Your task to perform on an android device: Open network settings Image 0: 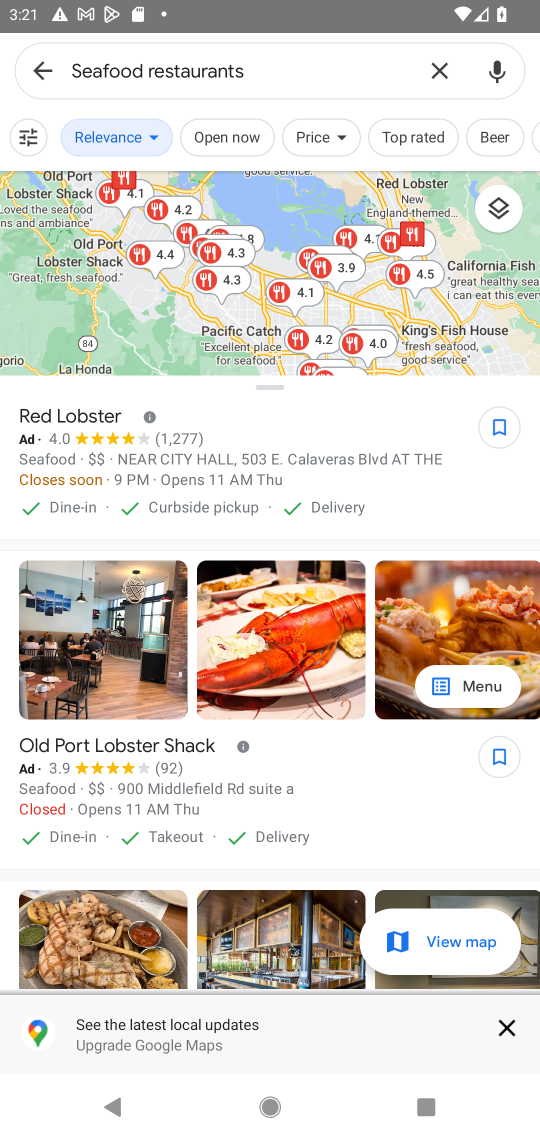
Step 0: press home button
Your task to perform on an android device: Open network settings Image 1: 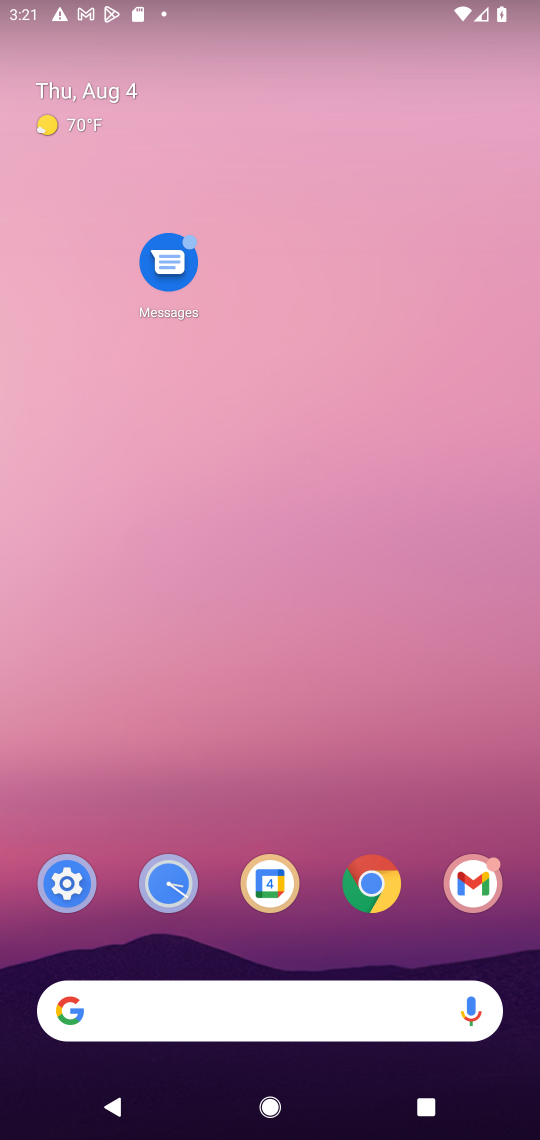
Step 1: drag from (276, 886) to (278, 141)
Your task to perform on an android device: Open network settings Image 2: 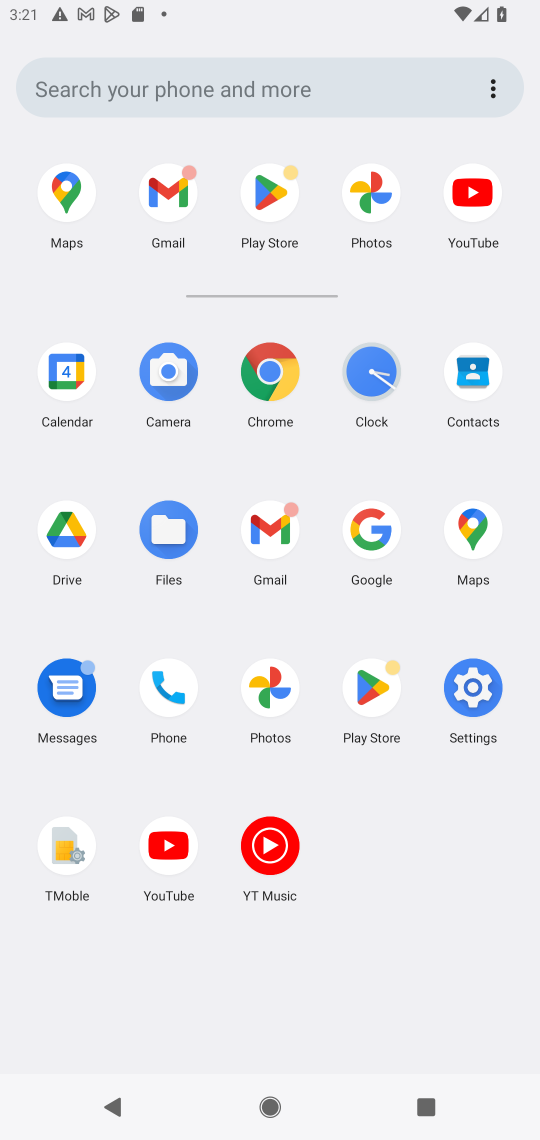
Step 2: click (479, 688)
Your task to perform on an android device: Open network settings Image 3: 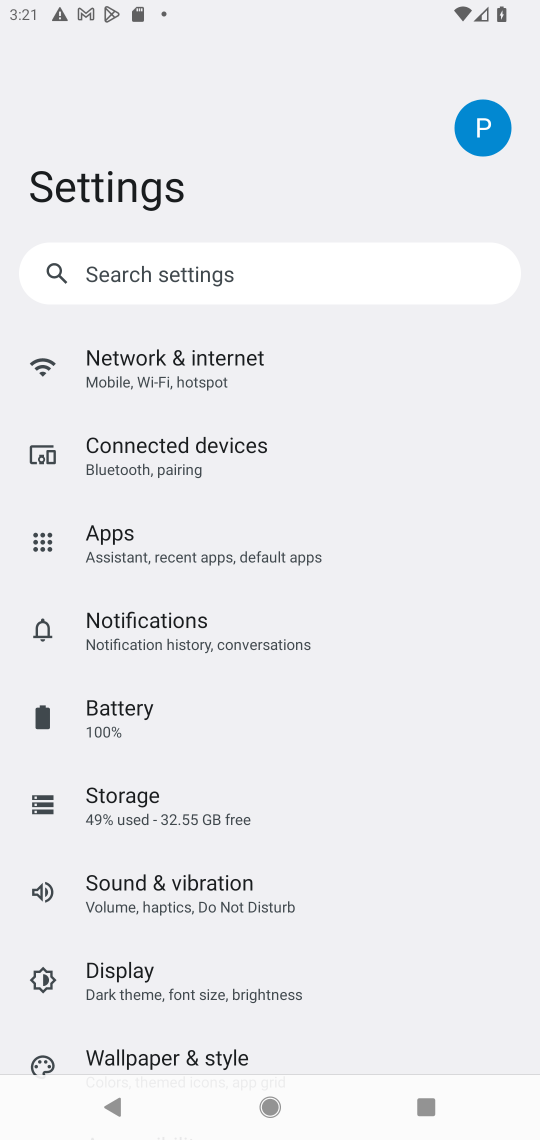
Step 3: click (115, 374)
Your task to perform on an android device: Open network settings Image 4: 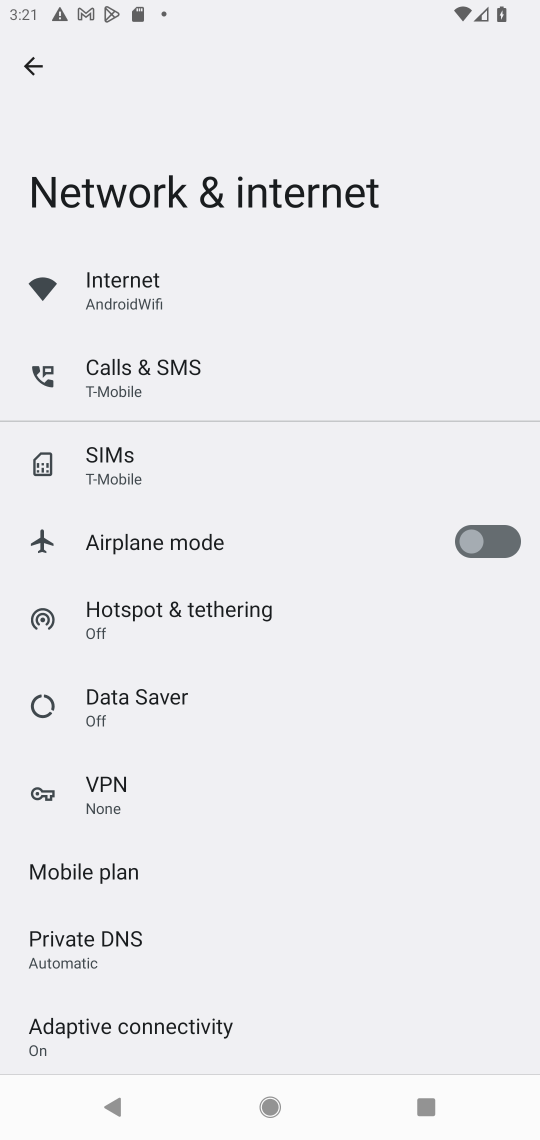
Step 4: task complete